Your task to perform on an android device: Open settings Image 0: 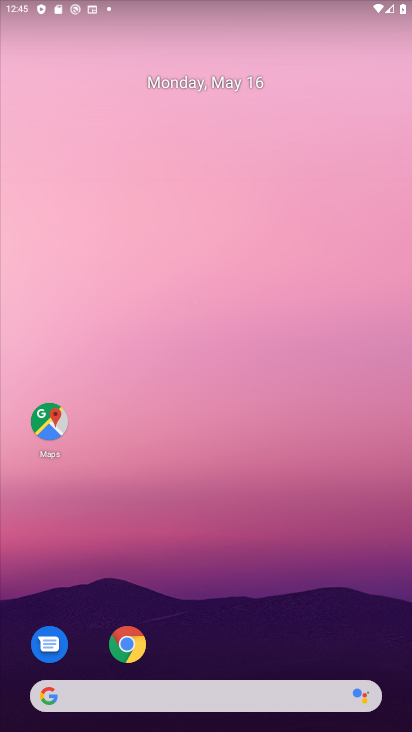
Step 0: drag from (228, 689) to (208, 253)
Your task to perform on an android device: Open settings Image 1: 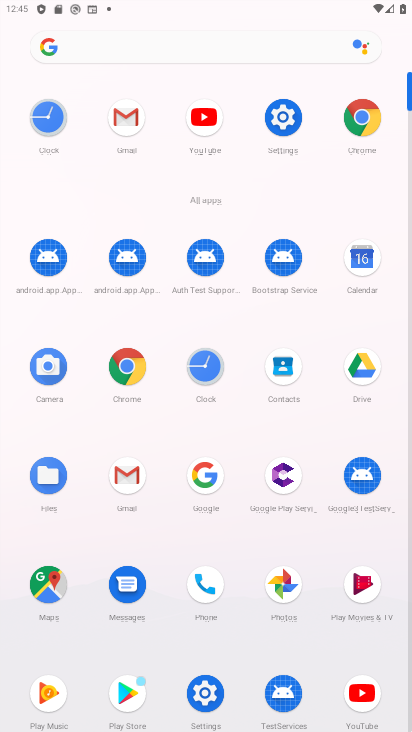
Step 1: click (277, 129)
Your task to perform on an android device: Open settings Image 2: 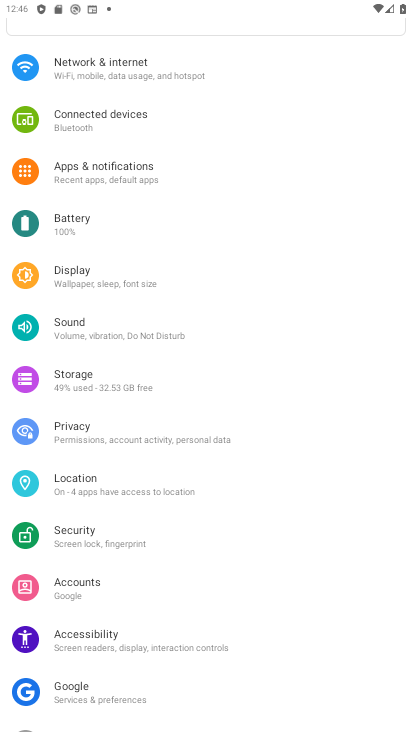
Step 2: task complete